Your task to perform on an android device: What's on my calendar today? Image 0: 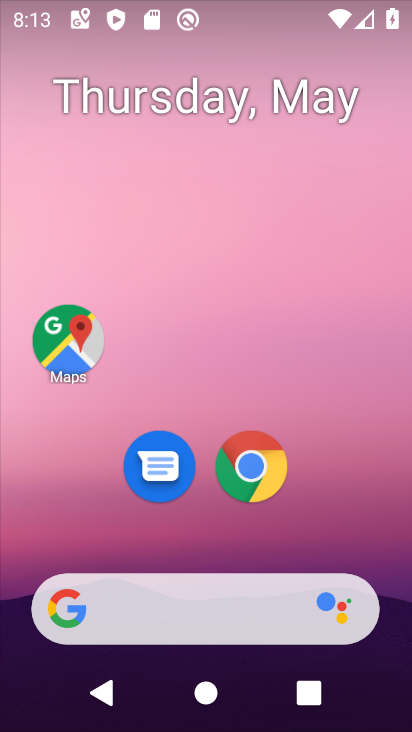
Step 0: drag from (360, 576) to (370, 0)
Your task to perform on an android device: What's on my calendar today? Image 1: 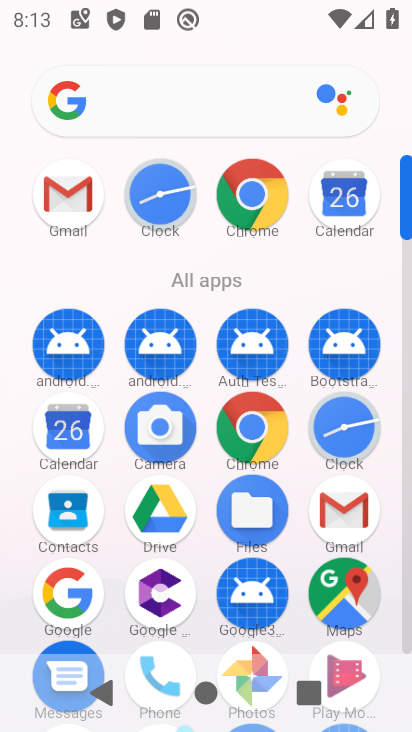
Step 1: click (331, 189)
Your task to perform on an android device: What's on my calendar today? Image 2: 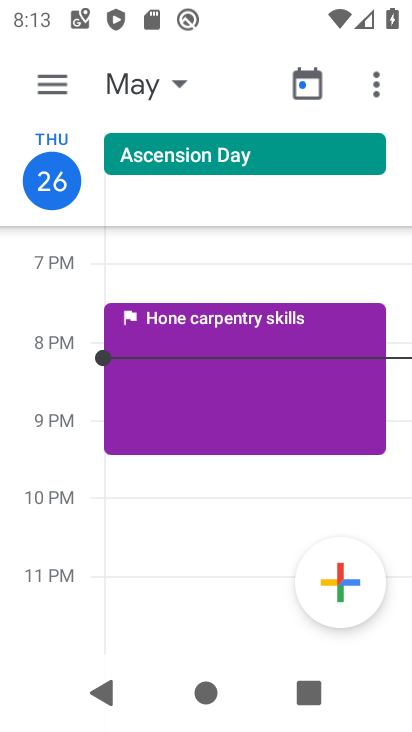
Step 2: drag from (205, 461) to (222, 643)
Your task to perform on an android device: What's on my calendar today? Image 3: 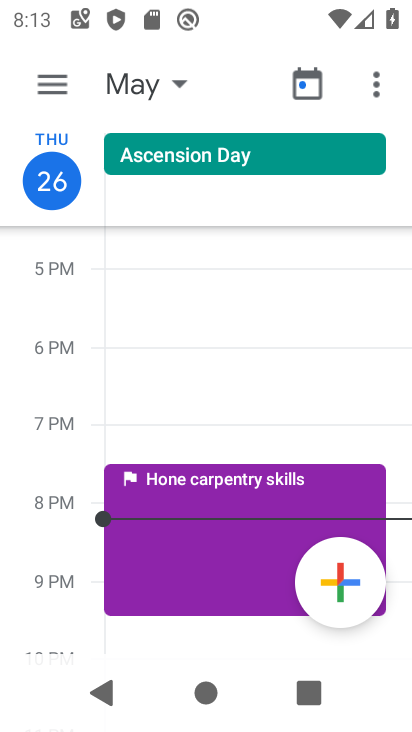
Step 3: click (45, 89)
Your task to perform on an android device: What's on my calendar today? Image 4: 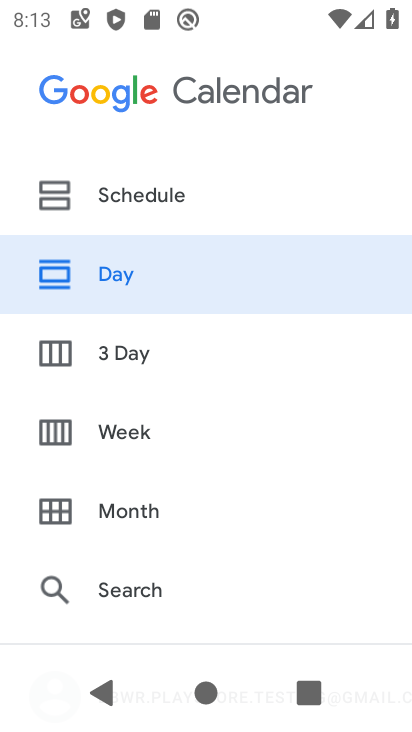
Step 4: drag from (173, 571) to (129, 107)
Your task to perform on an android device: What's on my calendar today? Image 5: 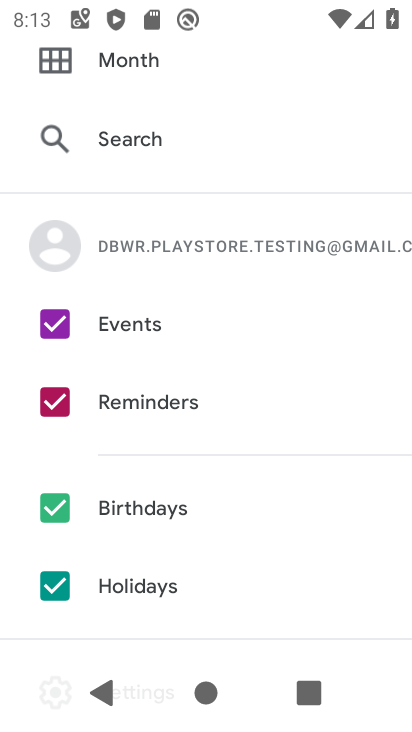
Step 5: drag from (86, 231) to (131, 672)
Your task to perform on an android device: What's on my calendar today? Image 6: 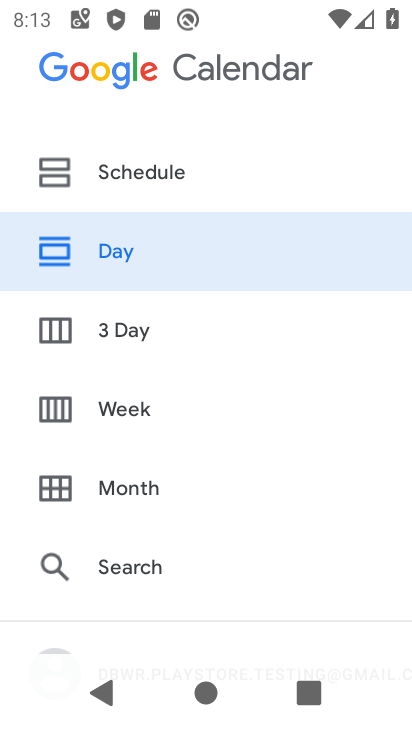
Step 6: click (100, 238)
Your task to perform on an android device: What's on my calendar today? Image 7: 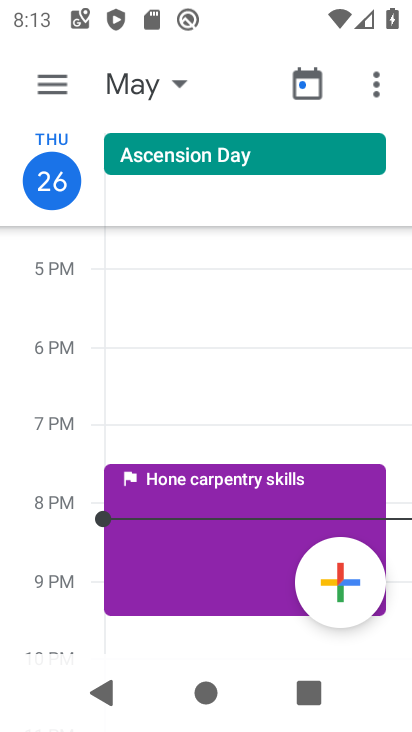
Step 7: task complete